Your task to perform on an android device: Show me the alarms in the clock app Image 0: 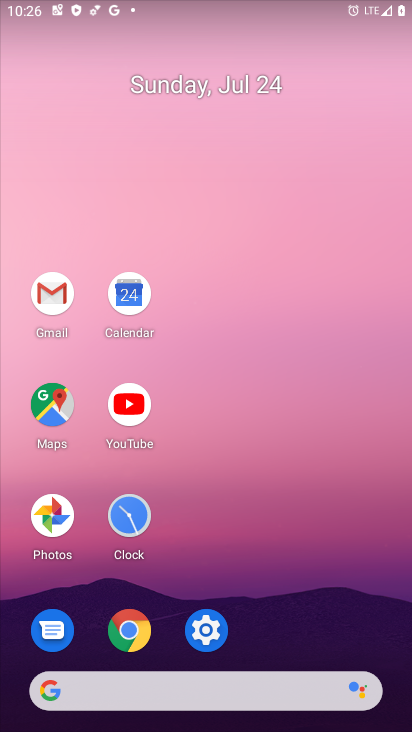
Step 0: click (126, 520)
Your task to perform on an android device: Show me the alarms in the clock app Image 1: 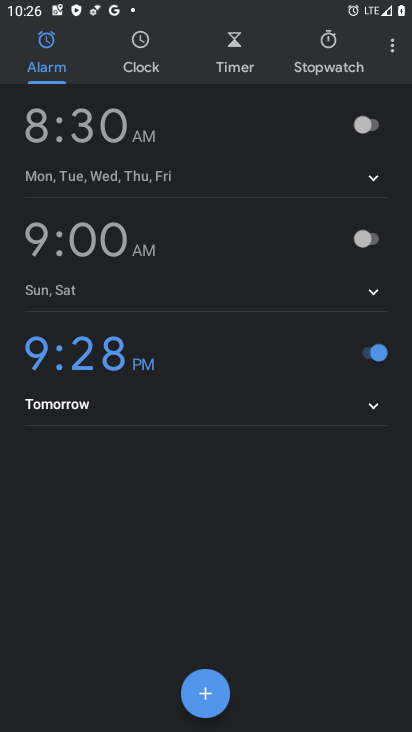
Step 1: task complete